Your task to perform on an android device: open a new tab in the chrome app Image 0: 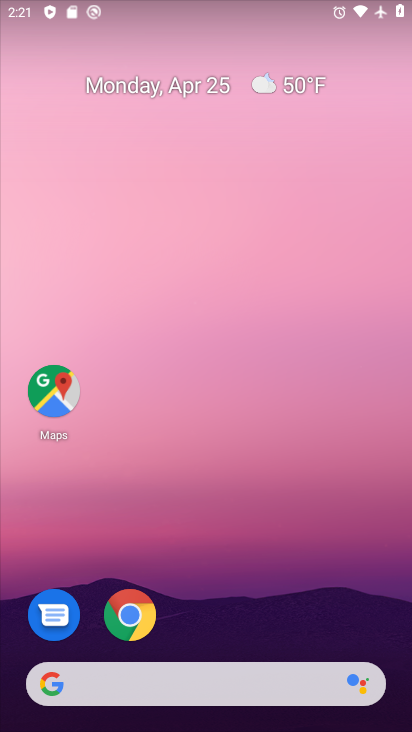
Step 0: click (130, 616)
Your task to perform on an android device: open a new tab in the chrome app Image 1: 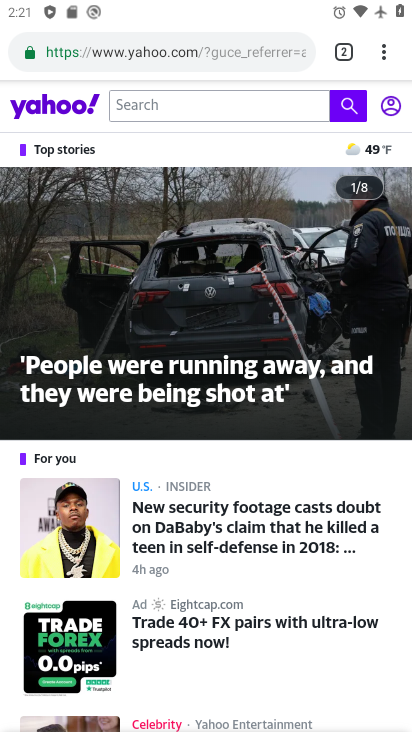
Step 1: click (383, 49)
Your task to perform on an android device: open a new tab in the chrome app Image 2: 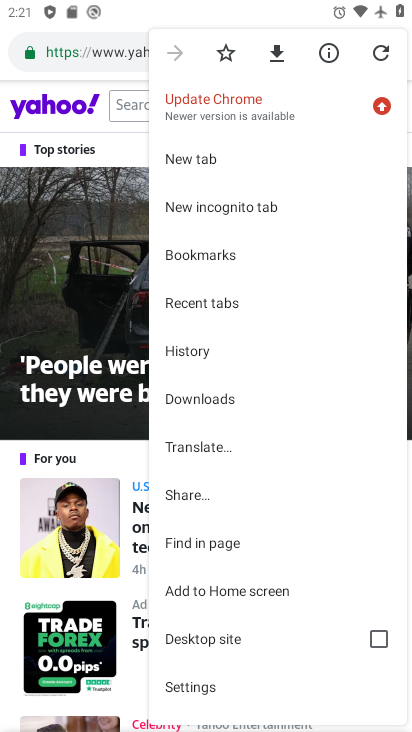
Step 2: click (213, 159)
Your task to perform on an android device: open a new tab in the chrome app Image 3: 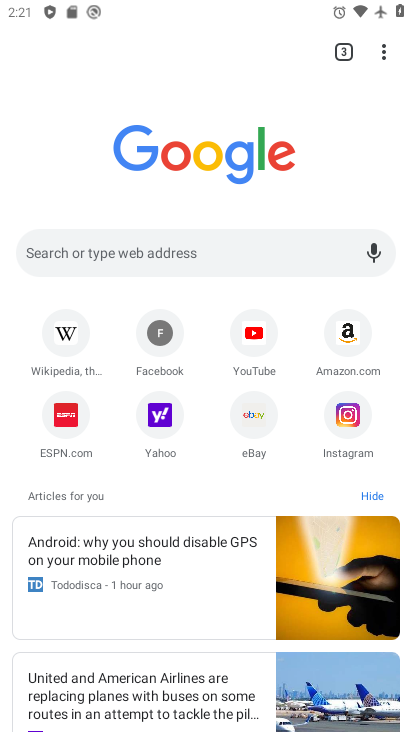
Step 3: task complete